Your task to perform on an android device: Open Google Chrome and open the bookmarks view Image 0: 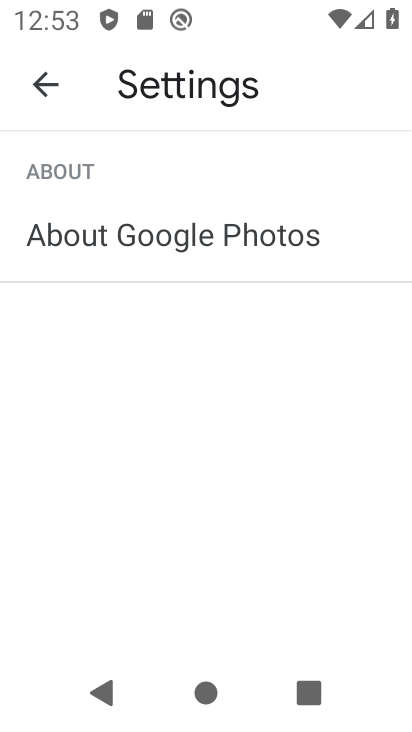
Step 0: press home button
Your task to perform on an android device: Open Google Chrome and open the bookmarks view Image 1: 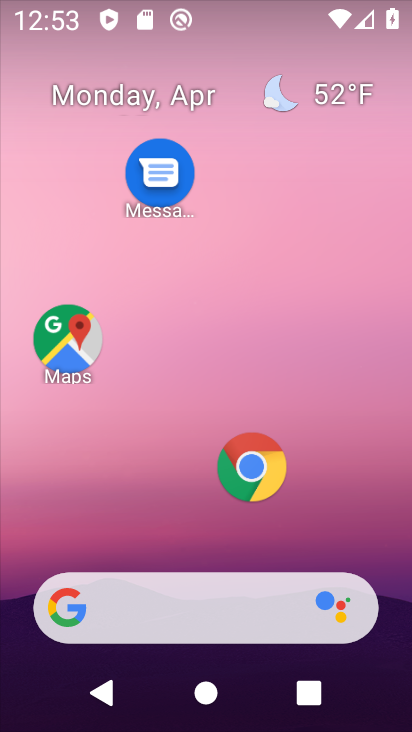
Step 1: click (234, 487)
Your task to perform on an android device: Open Google Chrome and open the bookmarks view Image 2: 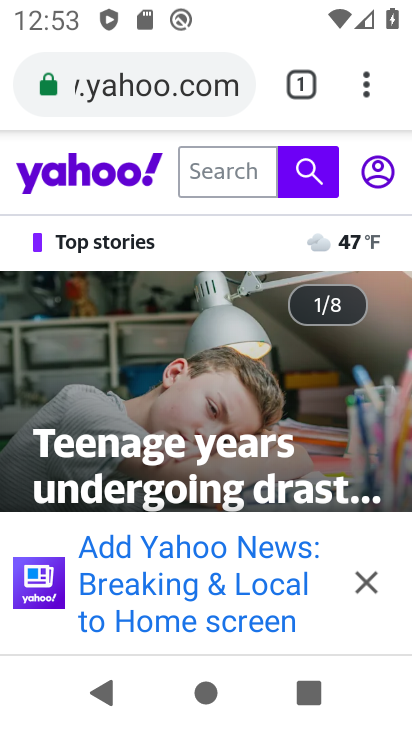
Step 2: click (375, 78)
Your task to perform on an android device: Open Google Chrome and open the bookmarks view Image 3: 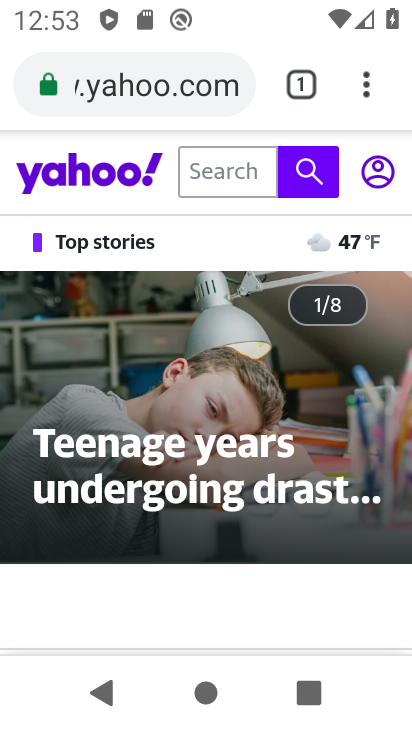
Step 3: task complete